Your task to perform on an android device: set an alarm Image 0: 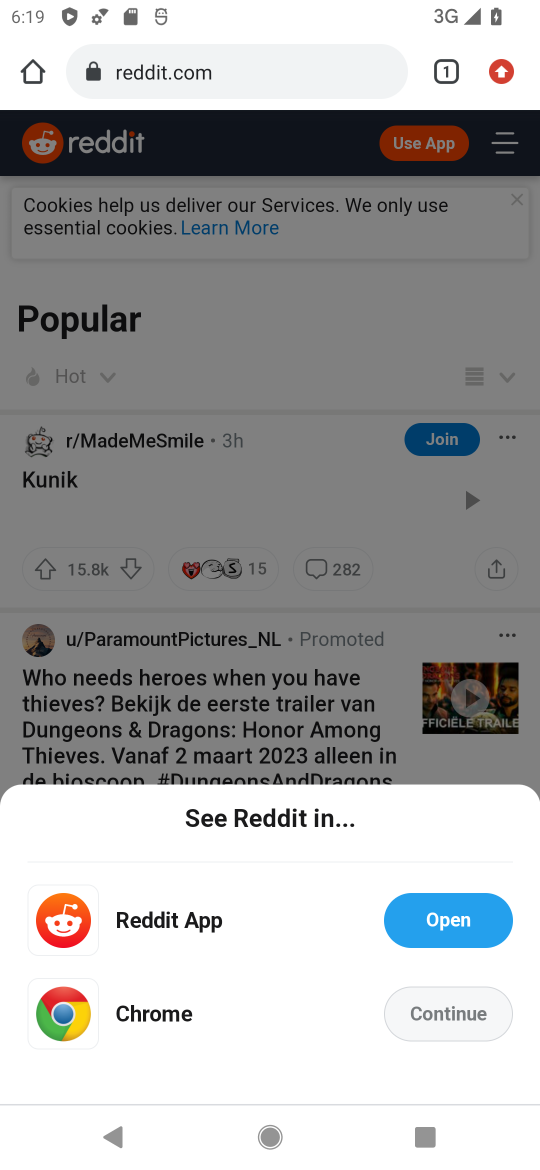
Step 0: press home button
Your task to perform on an android device: set an alarm Image 1: 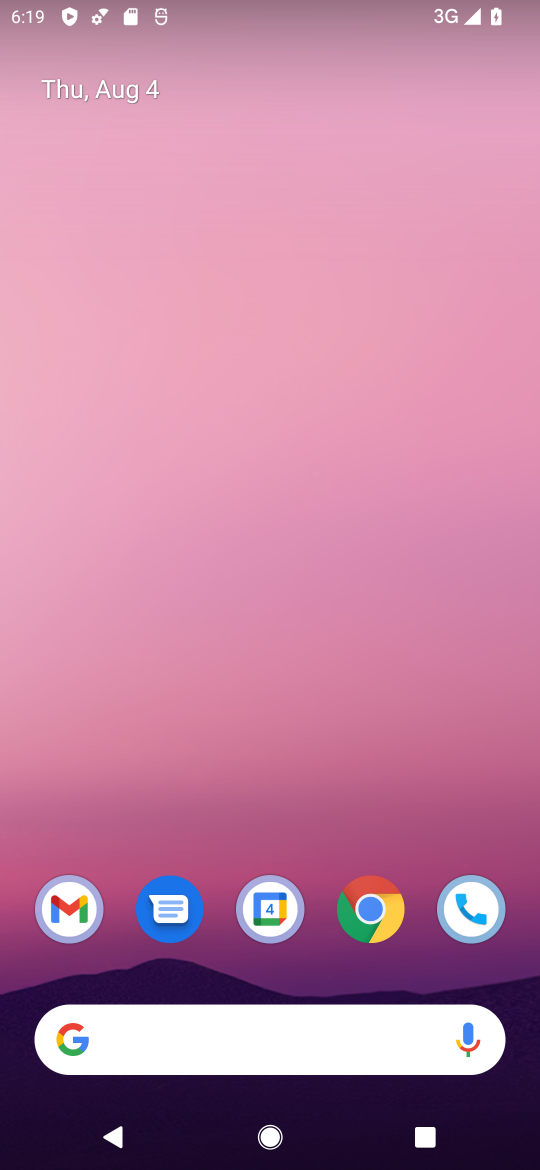
Step 1: drag from (255, 1074) to (283, 123)
Your task to perform on an android device: set an alarm Image 2: 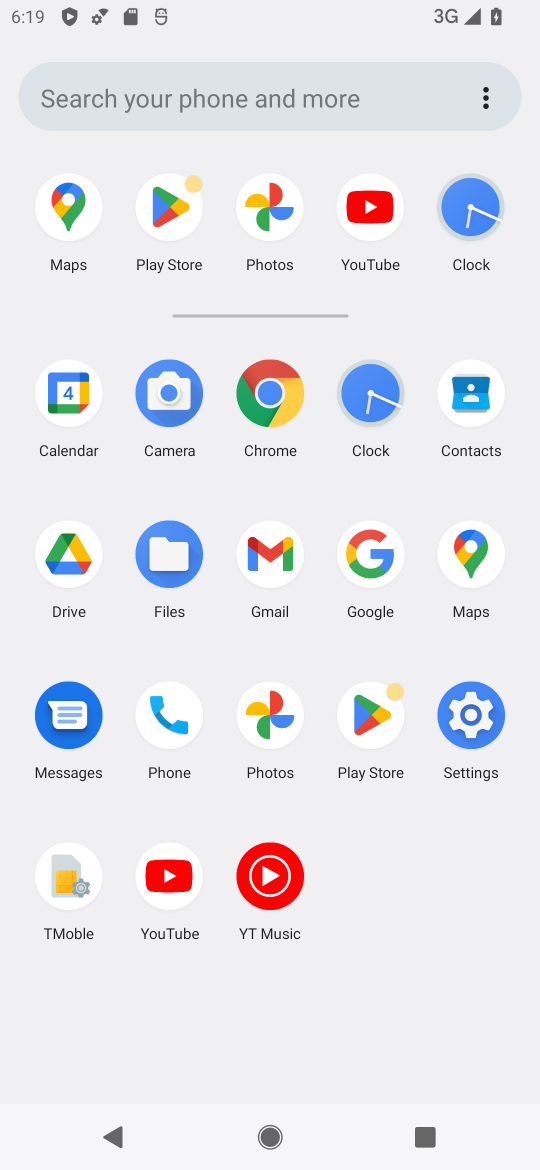
Step 2: click (370, 408)
Your task to perform on an android device: set an alarm Image 3: 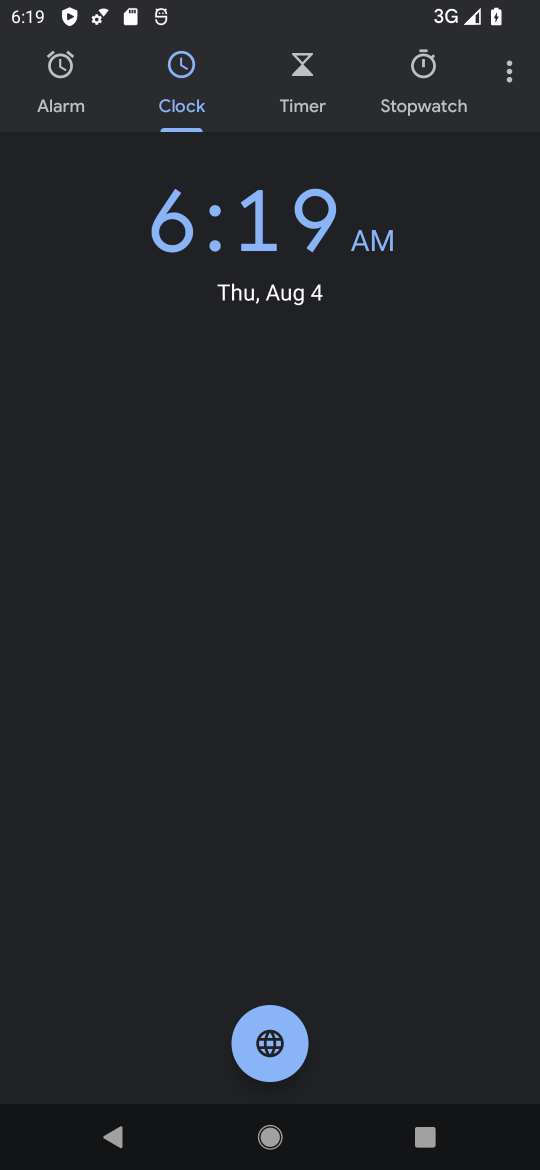
Step 3: click (52, 97)
Your task to perform on an android device: set an alarm Image 4: 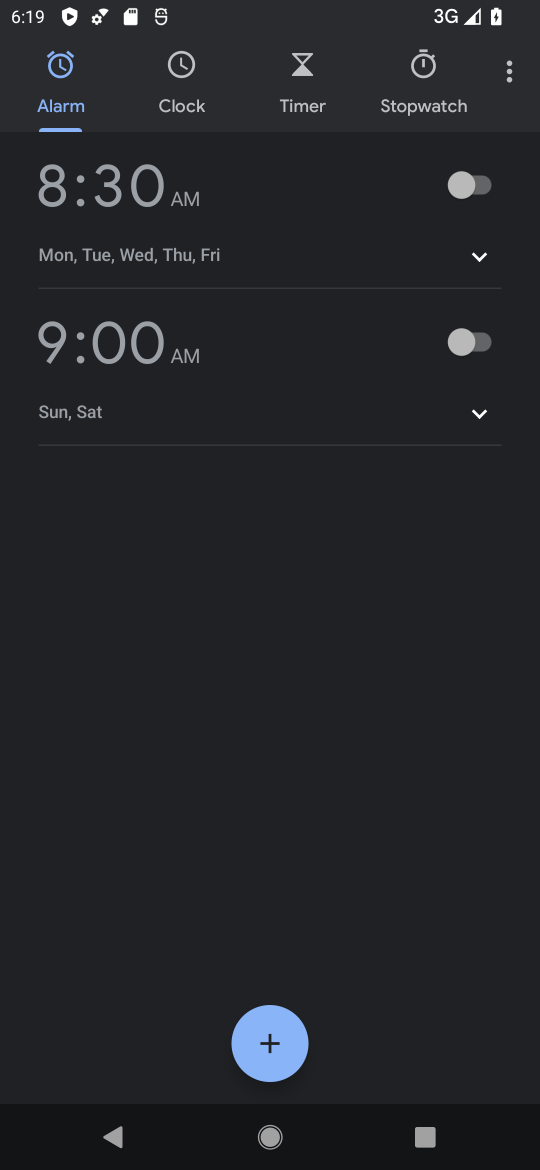
Step 4: click (472, 180)
Your task to perform on an android device: set an alarm Image 5: 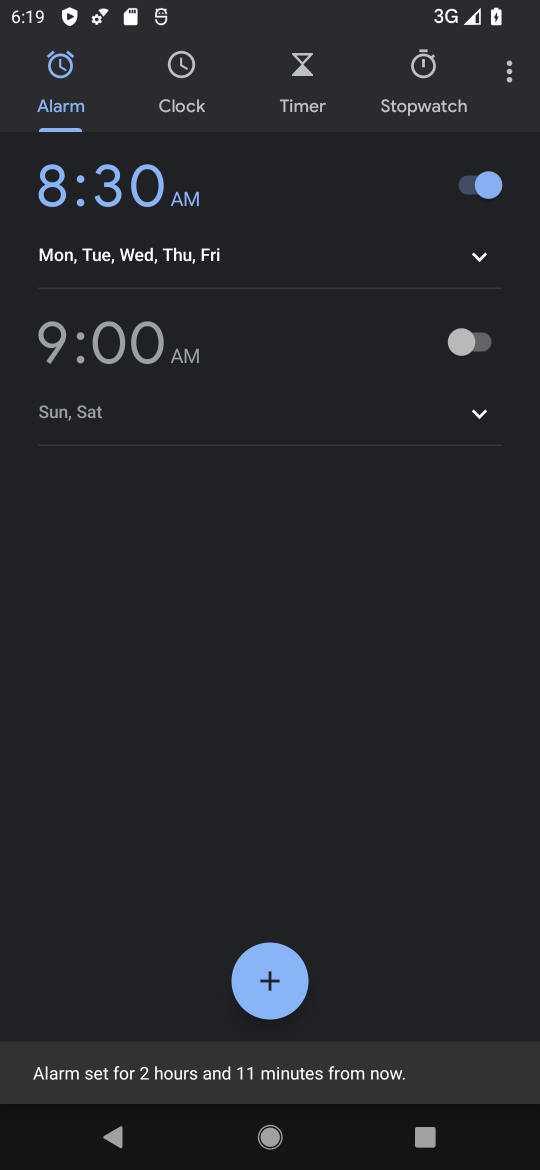
Step 5: task complete